Your task to perform on an android device: change notifications settings Image 0: 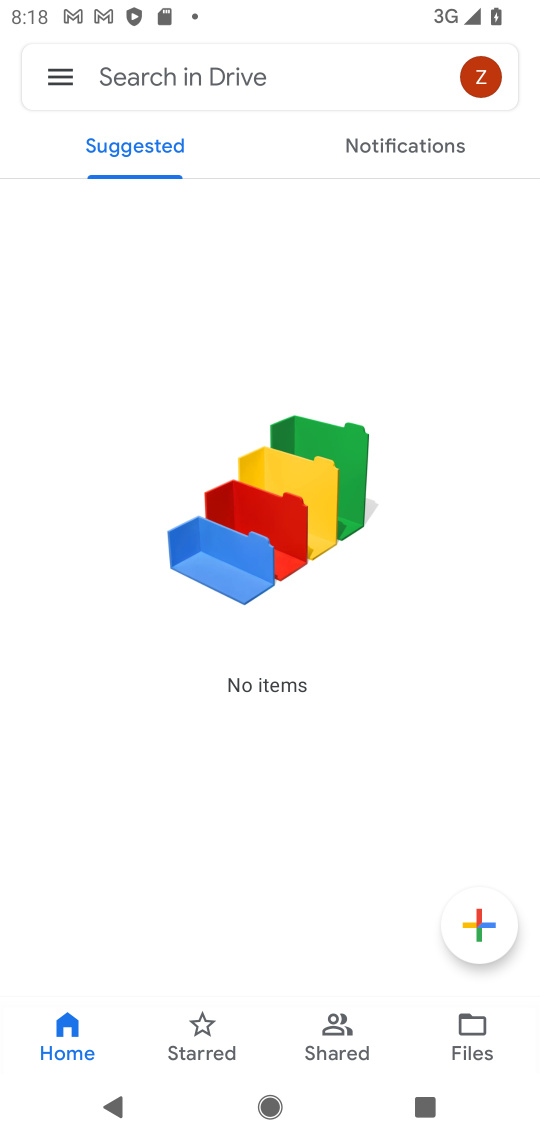
Step 0: press home button
Your task to perform on an android device: change notifications settings Image 1: 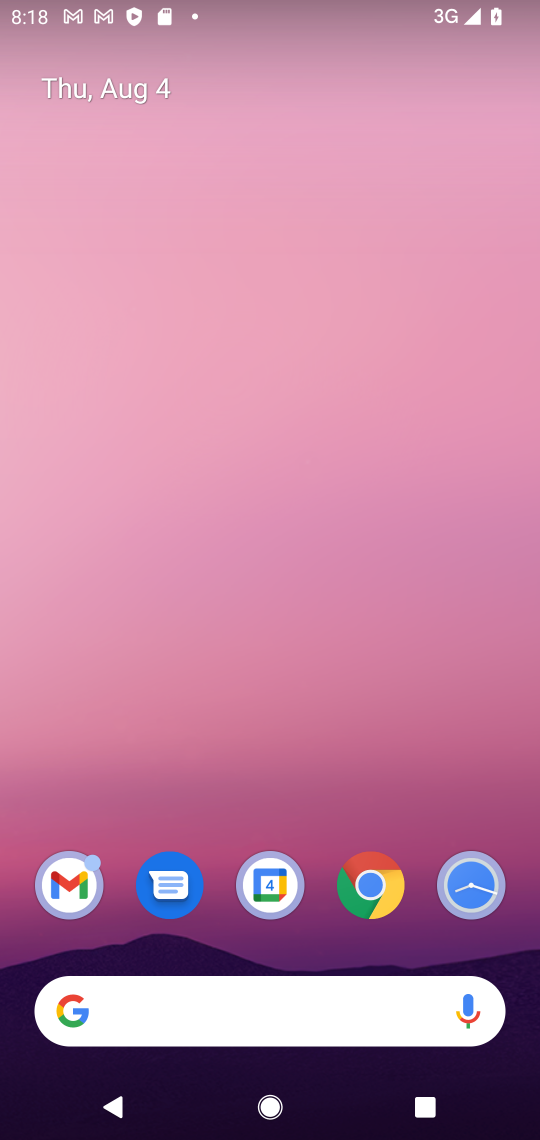
Step 1: drag from (214, 905) to (303, 193)
Your task to perform on an android device: change notifications settings Image 2: 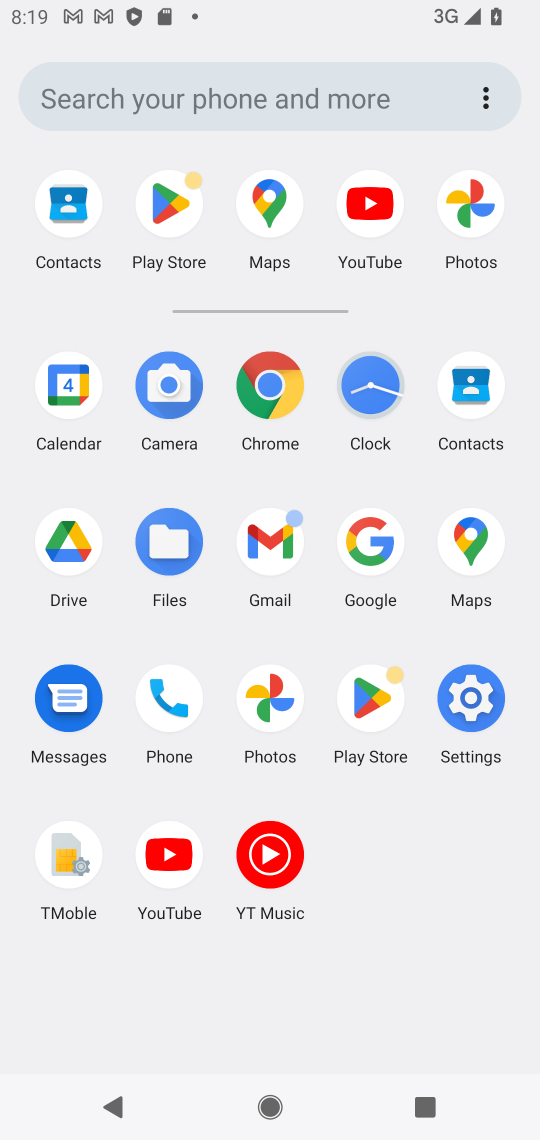
Step 2: click (444, 687)
Your task to perform on an android device: change notifications settings Image 3: 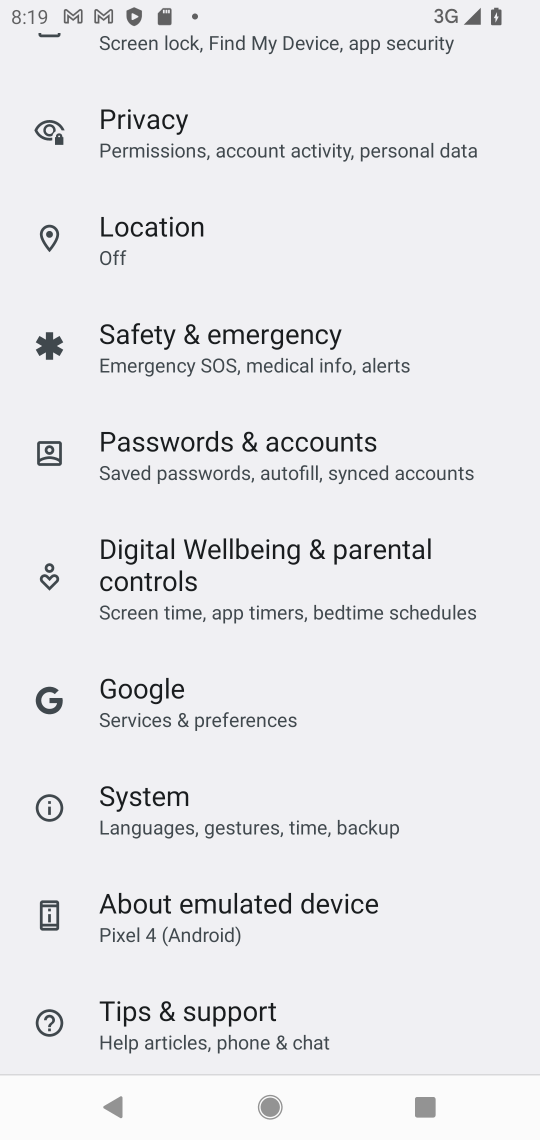
Step 3: drag from (195, 319) to (161, 1135)
Your task to perform on an android device: change notifications settings Image 4: 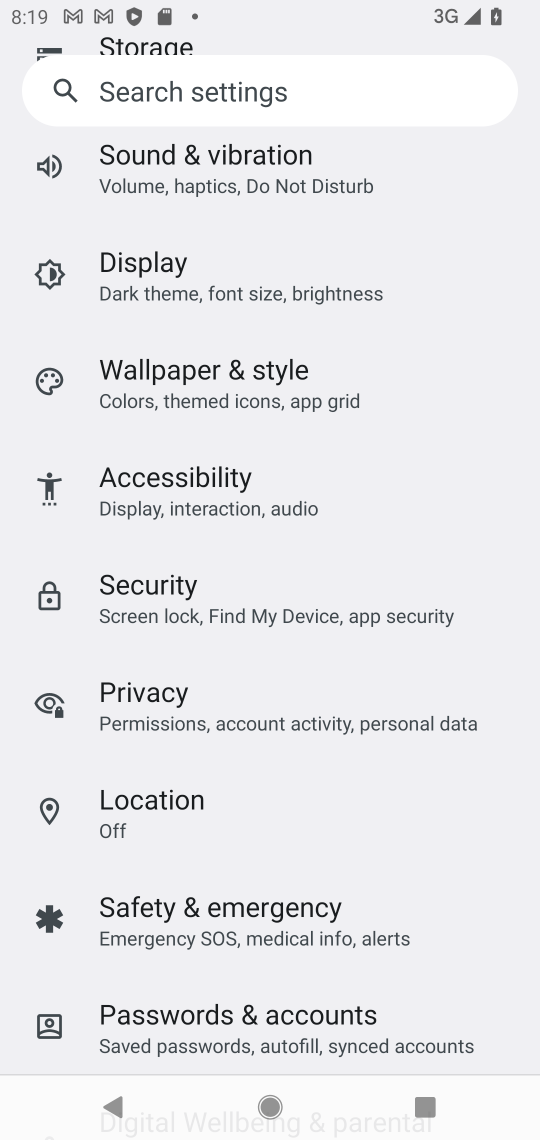
Step 4: drag from (270, 259) to (348, 1138)
Your task to perform on an android device: change notifications settings Image 5: 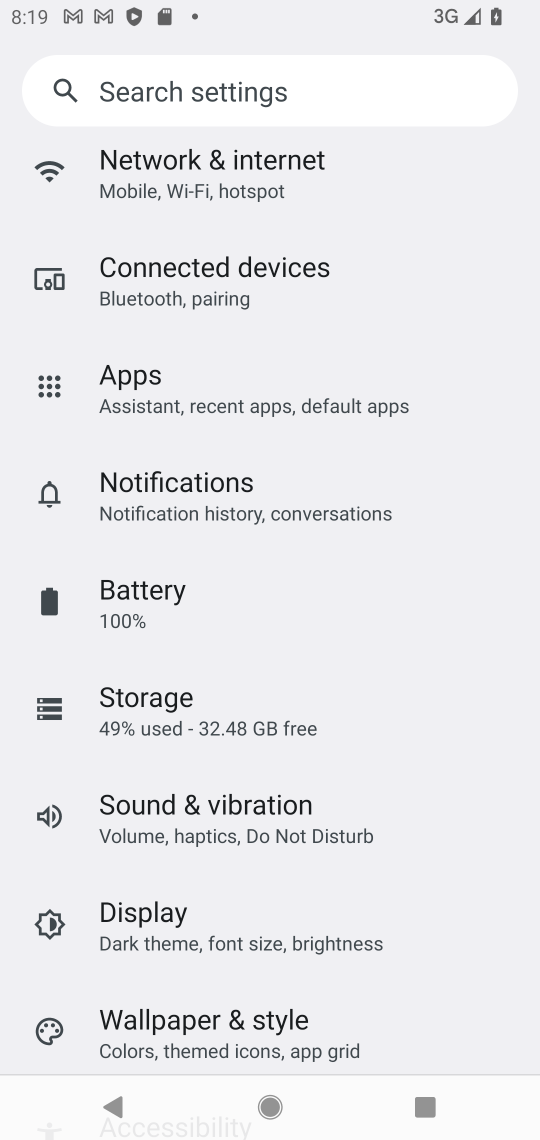
Step 5: click (134, 515)
Your task to perform on an android device: change notifications settings Image 6: 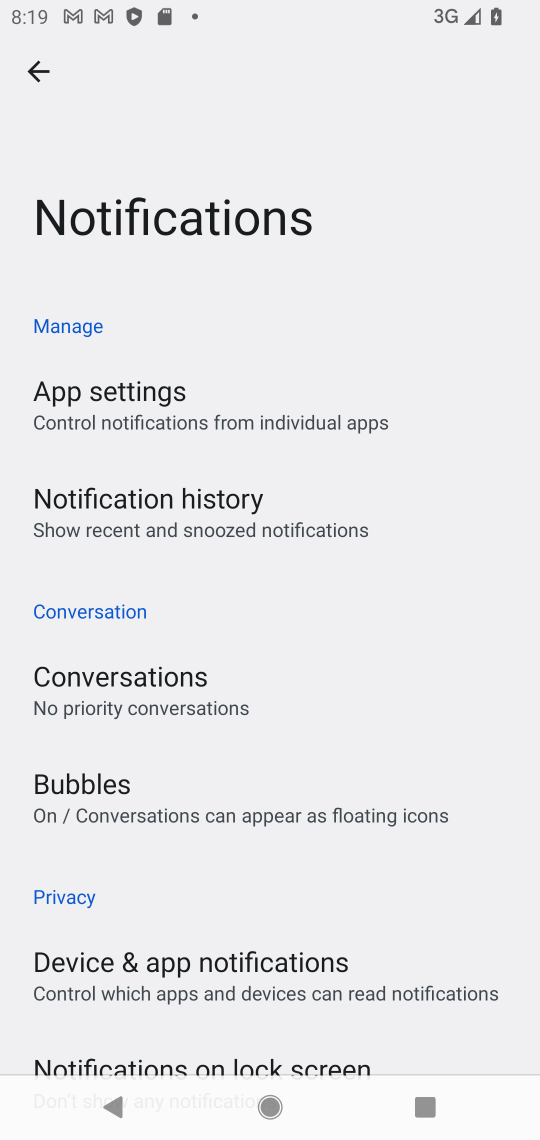
Step 6: task complete